Your task to perform on an android device: Open Google Chrome and open the bookmarks view Image 0: 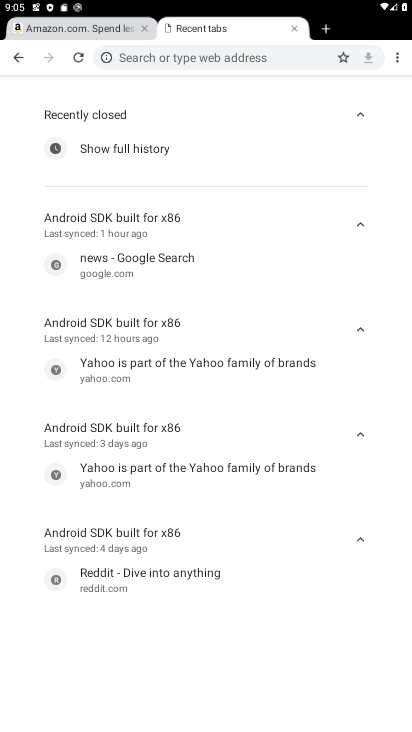
Step 0: press home button
Your task to perform on an android device: Open Google Chrome and open the bookmarks view Image 1: 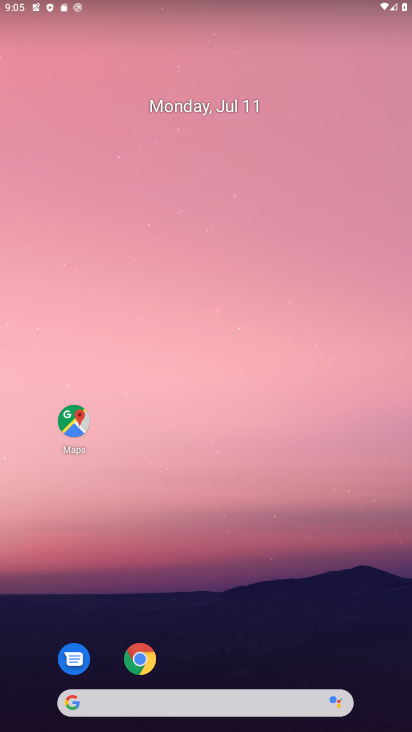
Step 1: drag from (233, 728) to (223, 102)
Your task to perform on an android device: Open Google Chrome and open the bookmarks view Image 2: 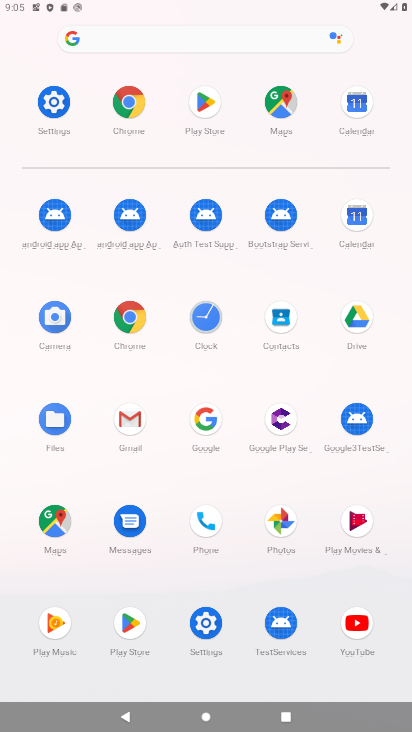
Step 2: click (130, 100)
Your task to perform on an android device: Open Google Chrome and open the bookmarks view Image 3: 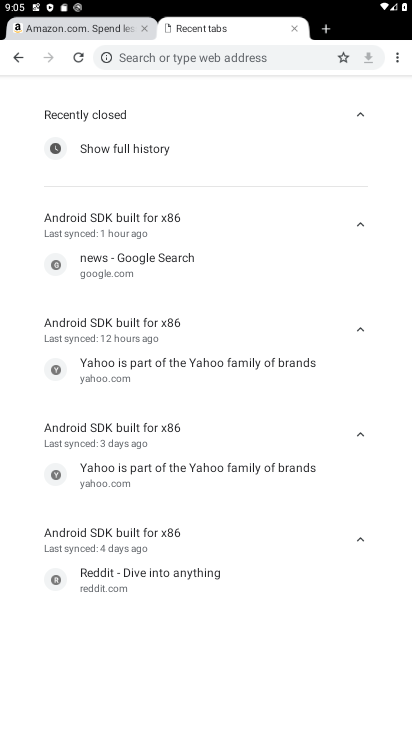
Step 3: click (397, 61)
Your task to perform on an android device: Open Google Chrome and open the bookmarks view Image 4: 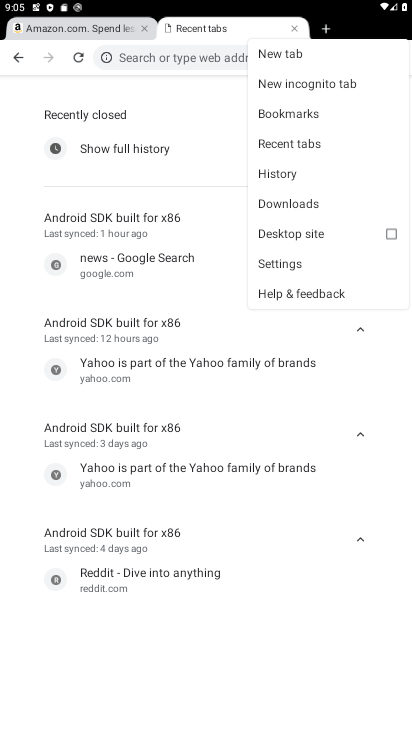
Step 4: click (290, 115)
Your task to perform on an android device: Open Google Chrome and open the bookmarks view Image 5: 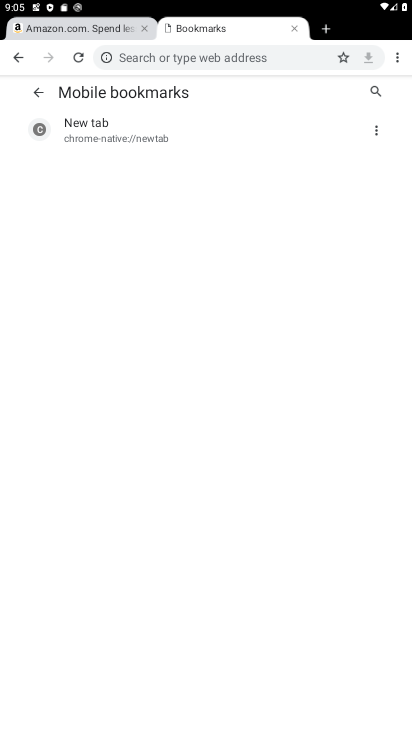
Step 5: task complete